Your task to perform on an android device: Open the calendar app, open the side menu, and click the "Day" option Image 0: 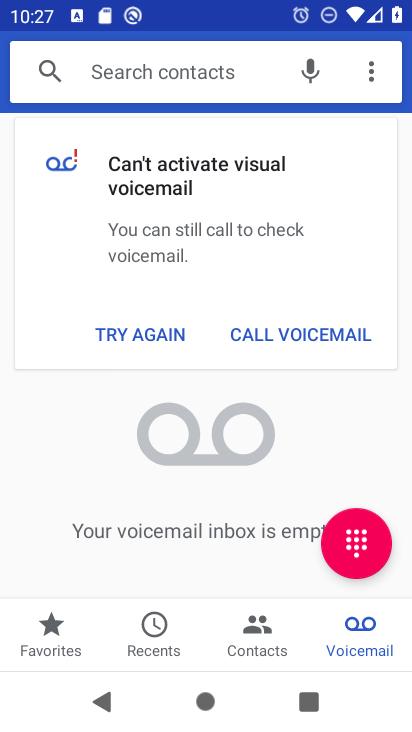
Step 0: press home button
Your task to perform on an android device: Open the calendar app, open the side menu, and click the "Day" option Image 1: 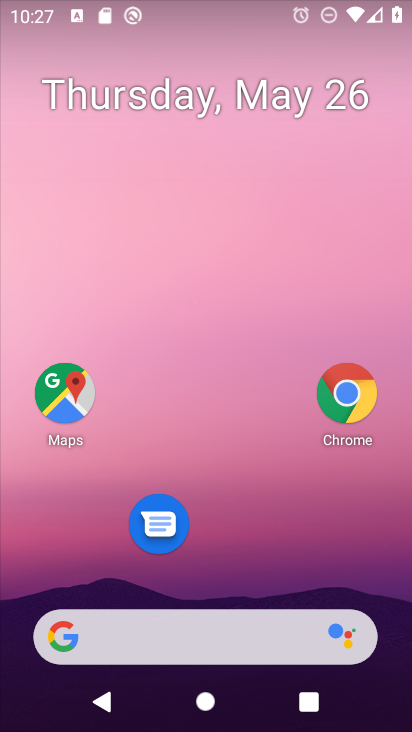
Step 1: drag from (221, 570) to (254, 0)
Your task to perform on an android device: Open the calendar app, open the side menu, and click the "Day" option Image 2: 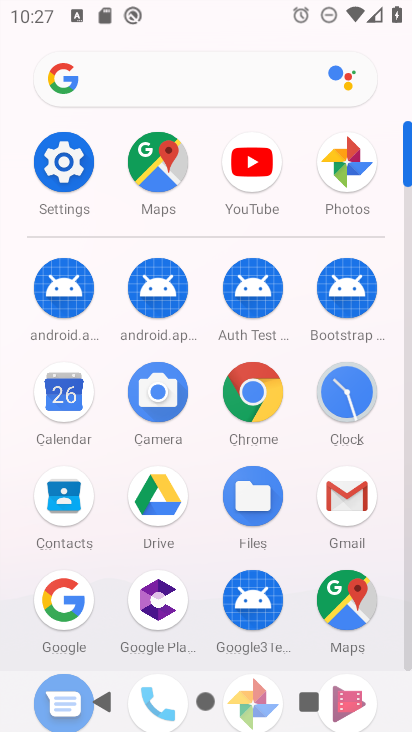
Step 2: click (62, 389)
Your task to perform on an android device: Open the calendar app, open the side menu, and click the "Day" option Image 3: 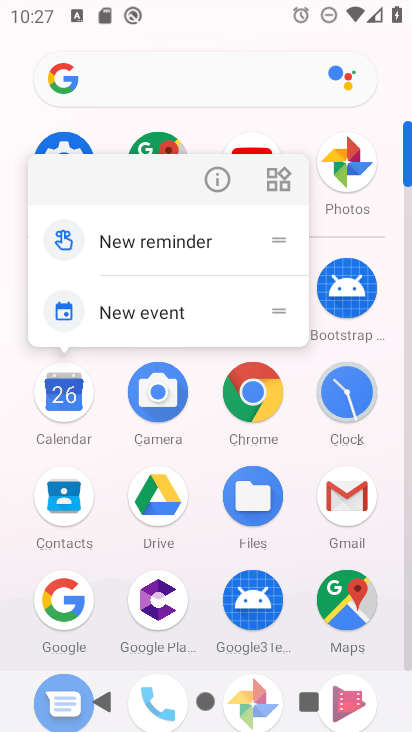
Step 3: click (61, 386)
Your task to perform on an android device: Open the calendar app, open the side menu, and click the "Day" option Image 4: 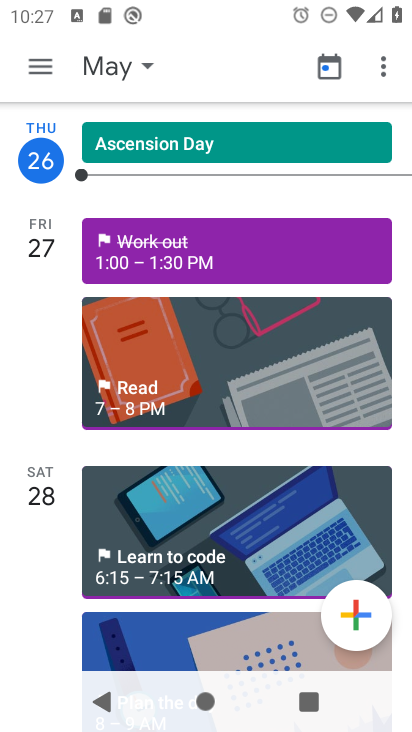
Step 4: click (44, 60)
Your task to perform on an android device: Open the calendar app, open the side menu, and click the "Day" option Image 5: 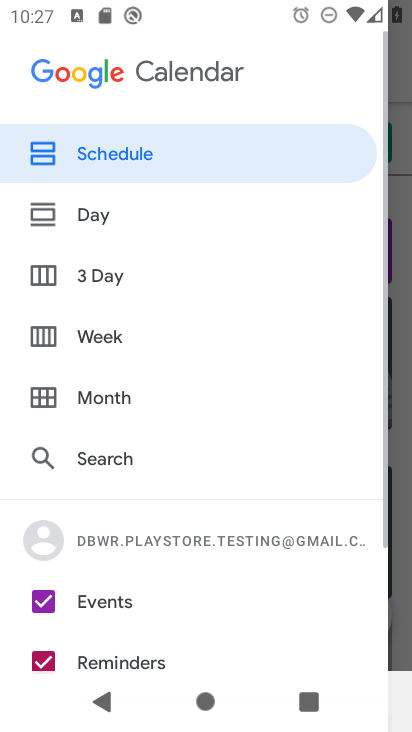
Step 5: click (43, 216)
Your task to perform on an android device: Open the calendar app, open the side menu, and click the "Day" option Image 6: 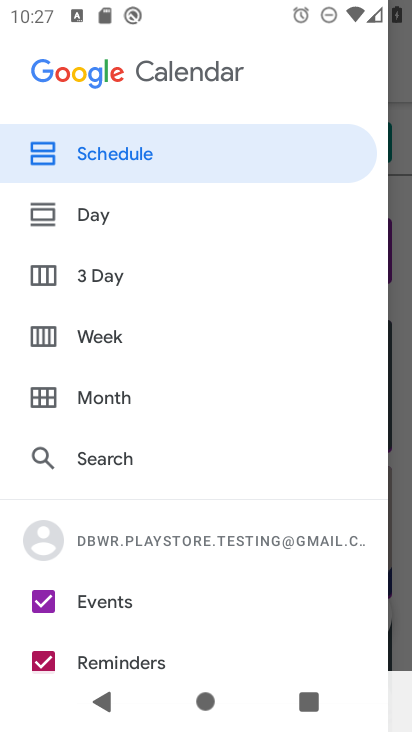
Step 6: click (45, 207)
Your task to perform on an android device: Open the calendar app, open the side menu, and click the "Day" option Image 7: 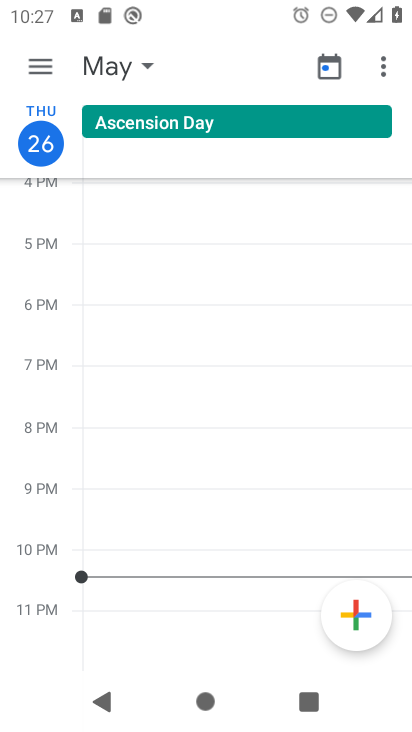
Step 7: task complete